Your task to perform on an android device: turn off wifi Image 0: 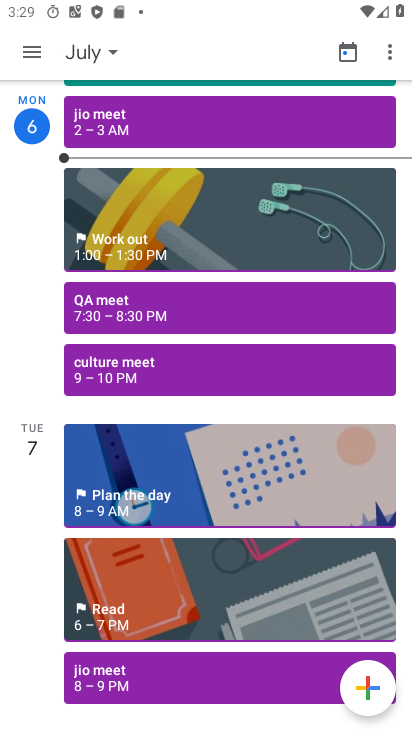
Step 0: press home button
Your task to perform on an android device: turn off wifi Image 1: 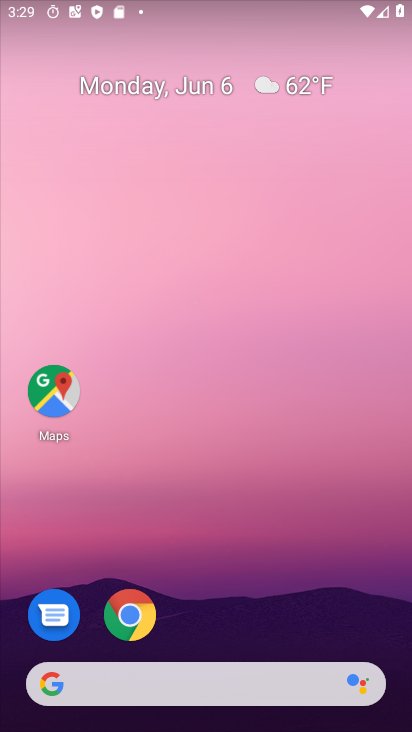
Step 1: drag from (231, 672) to (191, 50)
Your task to perform on an android device: turn off wifi Image 2: 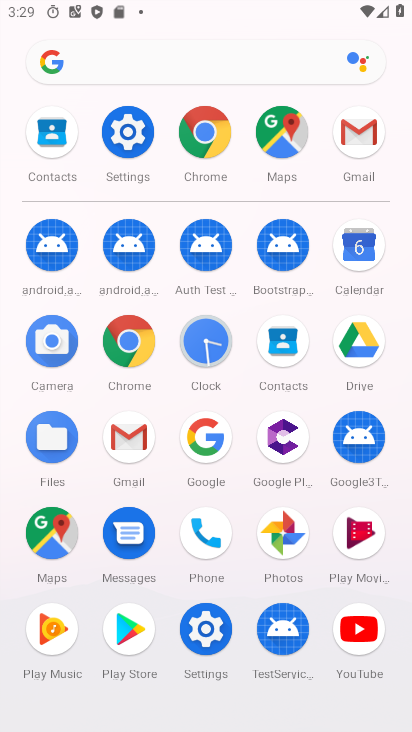
Step 2: click (142, 130)
Your task to perform on an android device: turn off wifi Image 3: 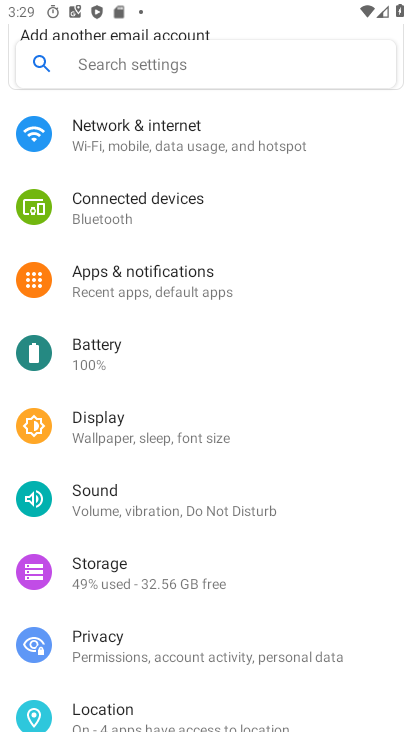
Step 3: drag from (201, 145) to (184, 338)
Your task to perform on an android device: turn off wifi Image 4: 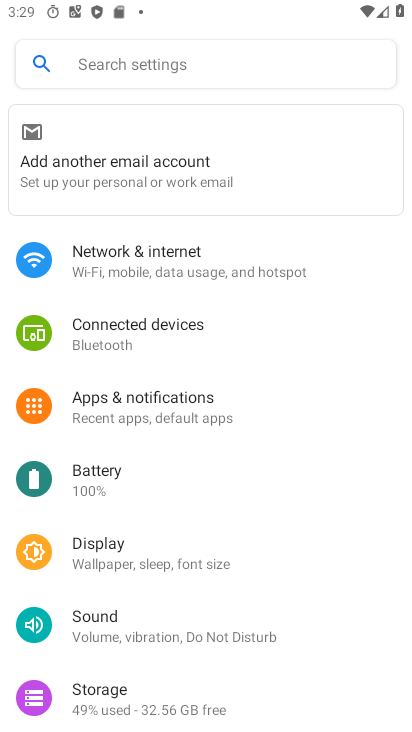
Step 4: click (163, 243)
Your task to perform on an android device: turn off wifi Image 5: 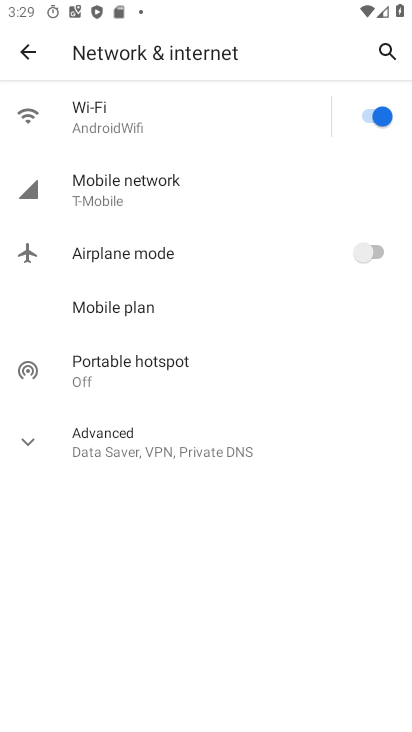
Step 5: click (164, 123)
Your task to perform on an android device: turn off wifi Image 6: 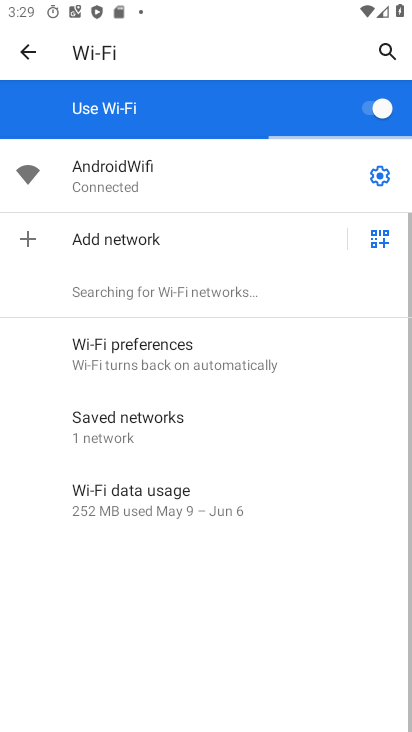
Step 6: click (376, 115)
Your task to perform on an android device: turn off wifi Image 7: 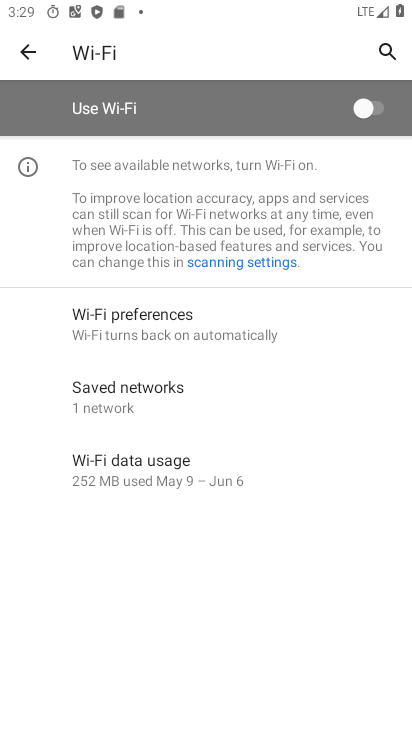
Step 7: task complete